Your task to perform on an android device: Open the calendar app, open the side menu, and click the "Day" option Image 0: 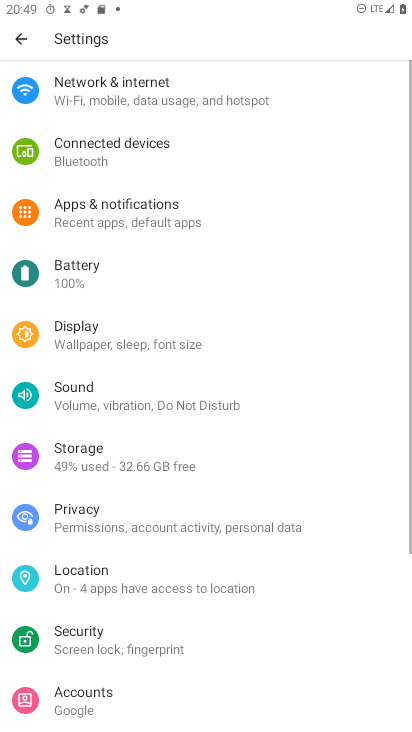
Step 0: press home button
Your task to perform on an android device: Open the calendar app, open the side menu, and click the "Day" option Image 1: 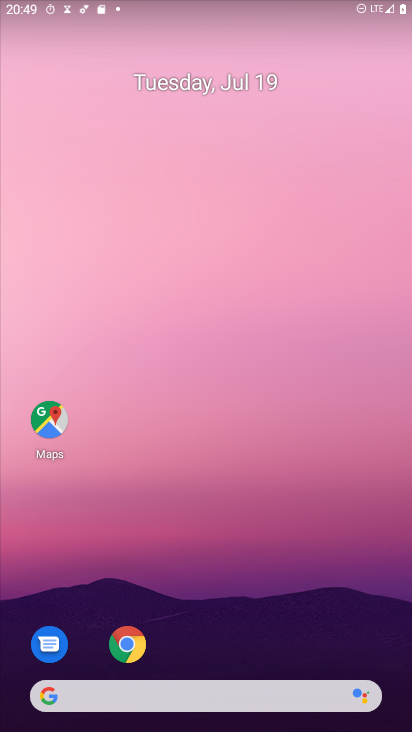
Step 1: drag from (9, 690) to (314, 68)
Your task to perform on an android device: Open the calendar app, open the side menu, and click the "Day" option Image 2: 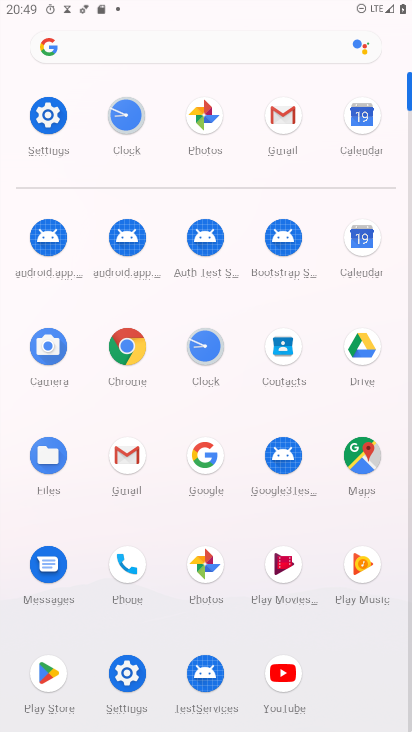
Step 2: click (371, 257)
Your task to perform on an android device: Open the calendar app, open the side menu, and click the "Day" option Image 3: 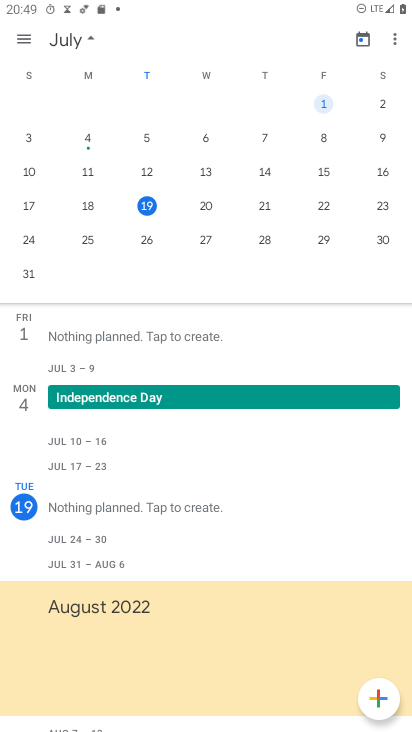
Step 3: click (27, 36)
Your task to perform on an android device: Open the calendar app, open the side menu, and click the "Day" option Image 4: 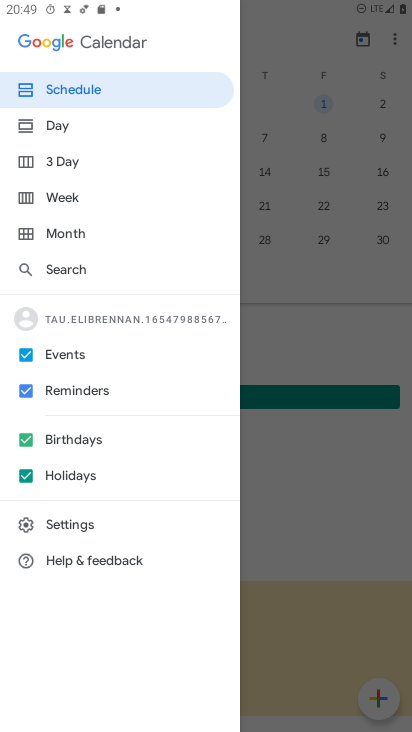
Step 4: click (62, 126)
Your task to perform on an android device: Open the calendar app, open the side menu, and click the "Day" option Image 5: 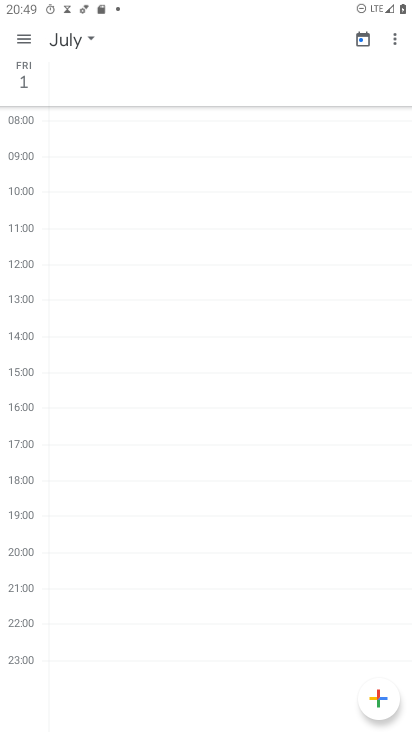
Step 5: click (80, 35)
Your task to perform on an android device: Open the calendar app, open the side menu, and click the "Day" option Image 6: 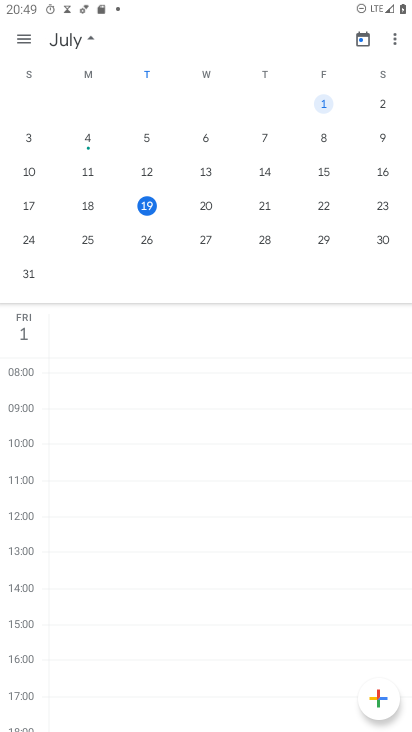
Step 6: task complete